Your task to perform on an android device: stop showing notifications on the lock screen Image 0: 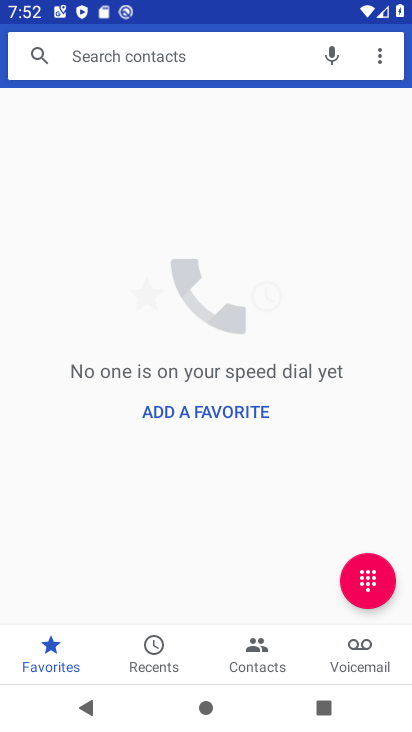
Step 0: press home button
Your task to perform on an android device: stop showing notifications on the lock screen Image 1: 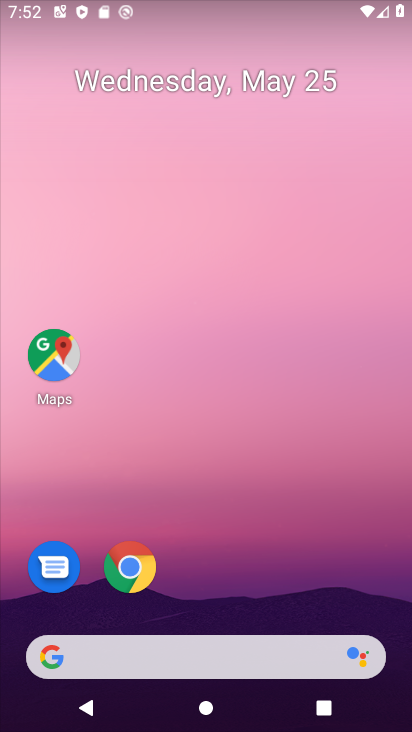
Step 1: drag from (243, 575) to (279, 110)
Your task to perform on an android device: stop showing notifications on the lock screen Image 2: 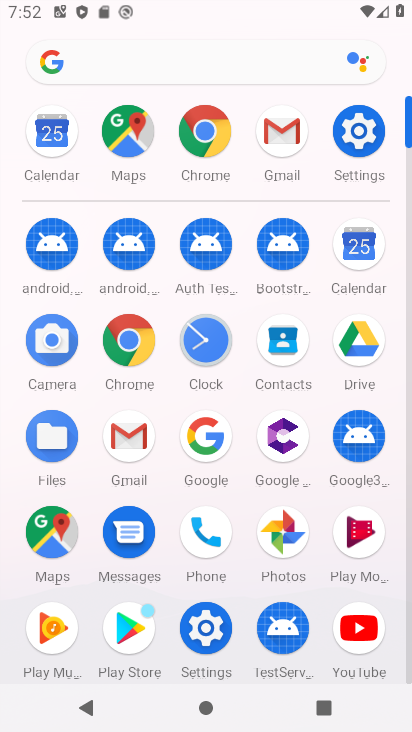
Step 2: click (375, 121)
Your task to perform on an android device: stop showing notifications on the lock screen Image 3: 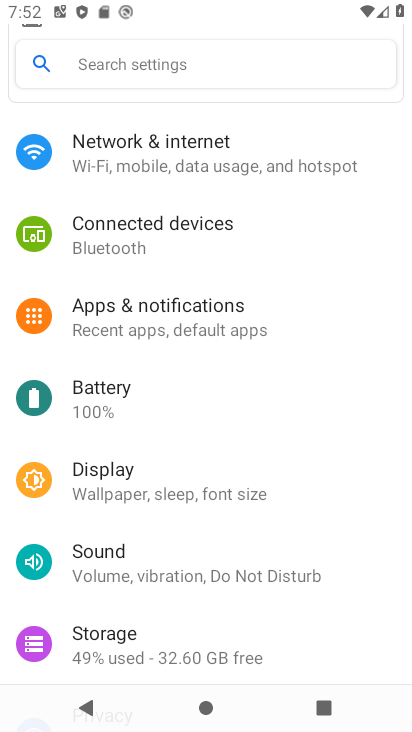
Step 3: click (220, 341)
Your task to perform on an android device: stop showing notifications on the lock screen Image 4: 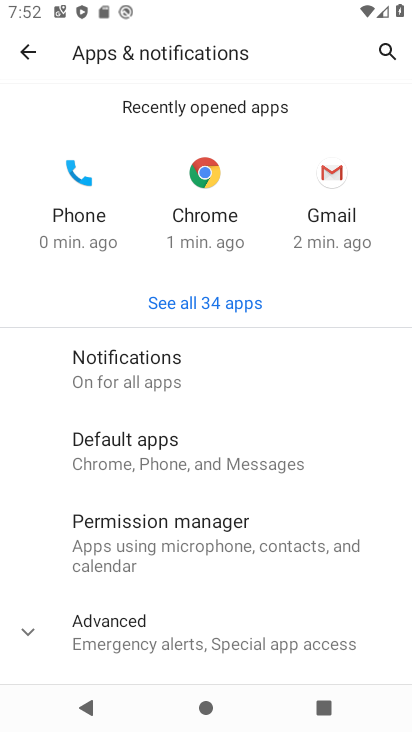
Step 4: drag from (170, 581) to (204, 327)
Your task to perform on an android device: stop showing notifications on the lock screen Image 5: 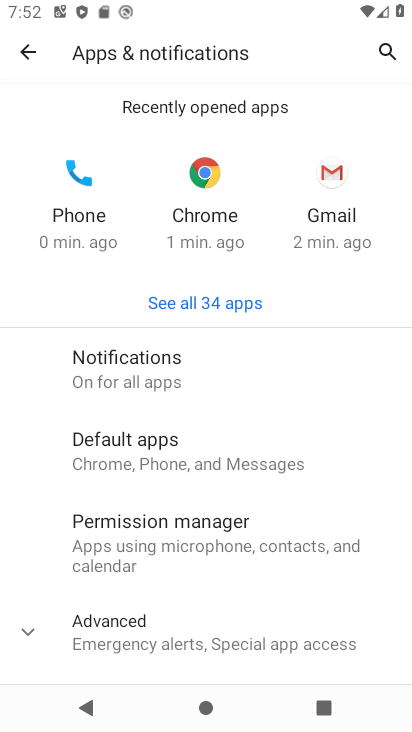
Step 5: click (193, 614)
Your task to perform on an android device: stop showing notifications on the lock screen Image 6: 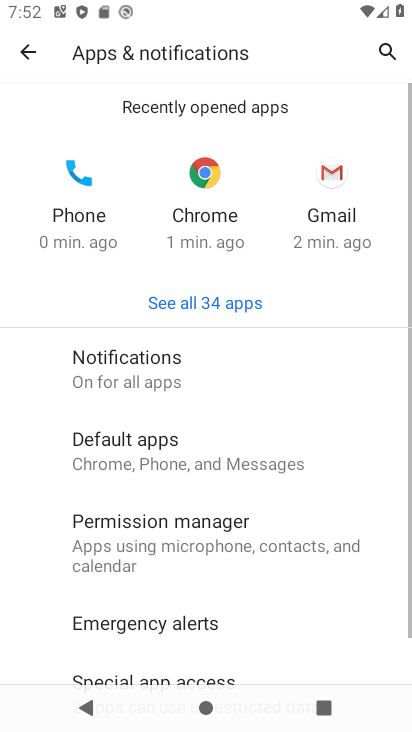
Step 6: drag from (193, 614) to (220, 375)
Your task to perform on an android device: stop showing notifications on the lock screen Image 7: 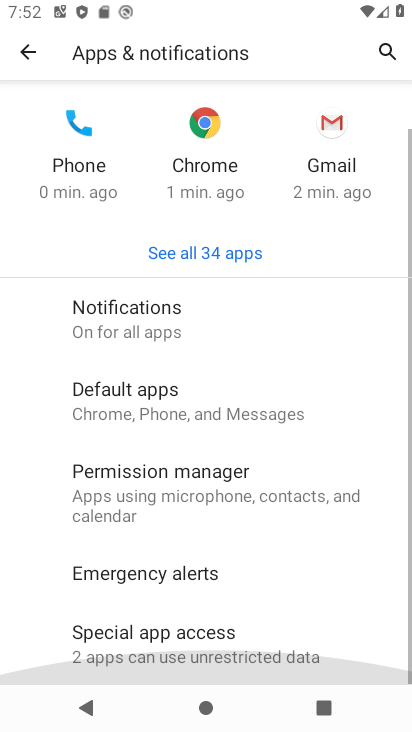
Step 7: click (220, 375)
Your task to perform on an android device: stop showing notifications on the lock screen Image 8: 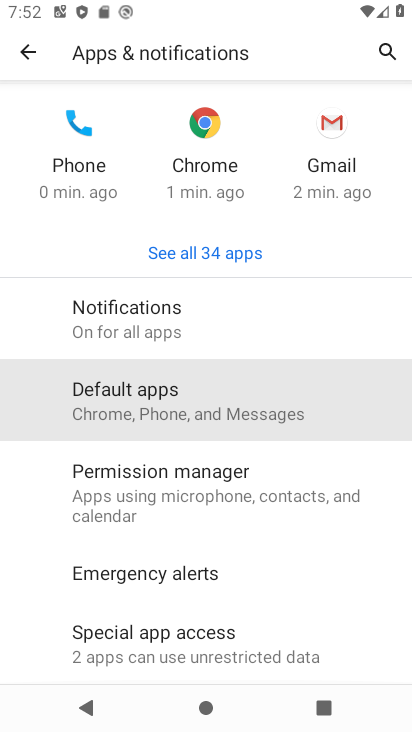
Step 8: click (197, 299)
Your task to perform on an android device: stop showing notifications on the lock screen Image 9: 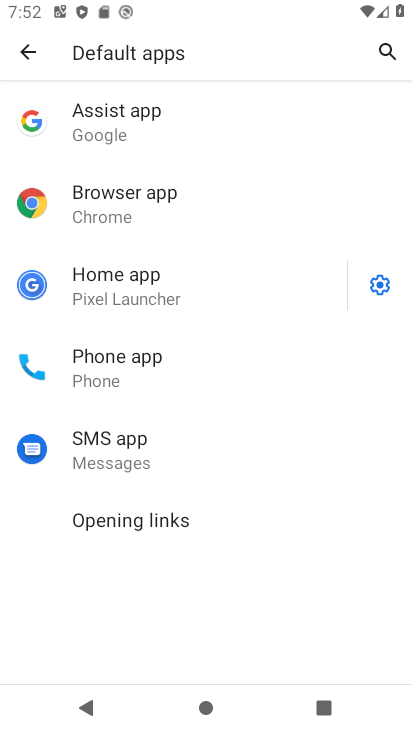
Step 9: task complete